Your task to perform on an android device: What's the weather today? Image 0: 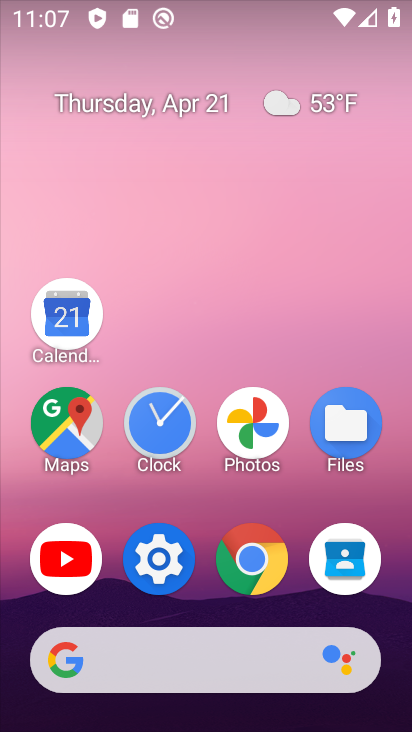
Step 0: click (307, 97)
Your task to perform on an android device: What's the weather today? Image 1: 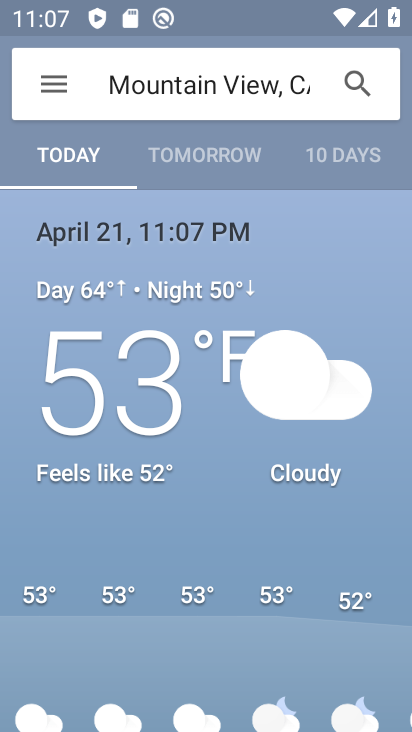
Step 1: task complete